Your task to perform on an android device: Search for rayovac triple a on newegg.com, select the first entry, and add it to the cart. Image 0: 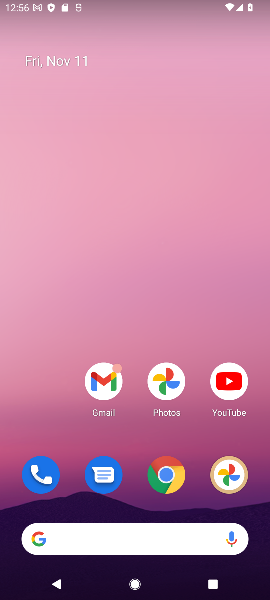
Step 0: drag from (139, 431) to (178, 58)
Your task to perform on an android device: Search for rayovac triple a on newegg.com, select the first entry, and add it to the cart. Image 1: 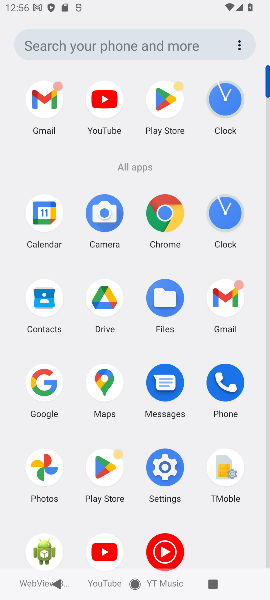
Step 1: click (177, 209)
Your task to perform on an android device: Search for rayovac triple a on newegg.com, select the first entry, and add it to the cart. Image 2: 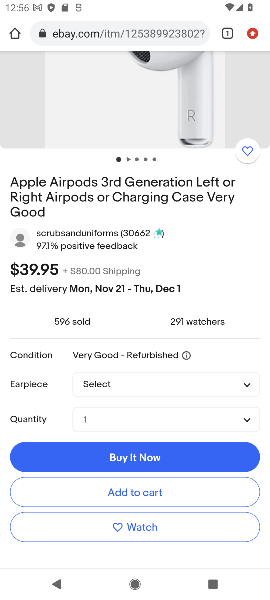
Step 2: click (135, 31)
Your task to perform on an android device: Search for rayovac triple a on newegg.com, select the first entry, and add it to the cart. Image 3: 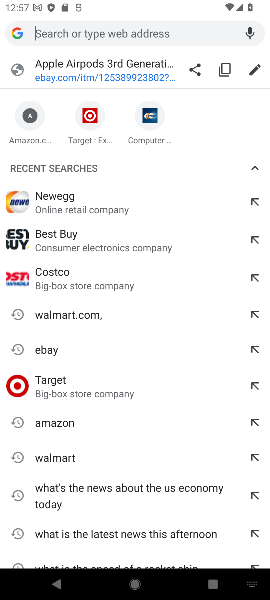
Step 3: type "newegg.com"
Your task to perform on an android device: Search for rayovac triple a on newegg.com, select the first entry, and add it to the cart. Image 4: 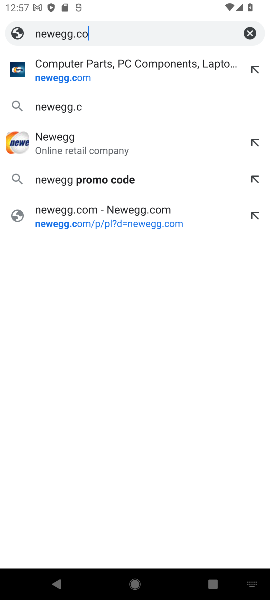
Step 4: press enter
Your task to perform on an android device: Search for rayovac triple a on newegg.com, select the first entry, and add it to the cart. Image 5: 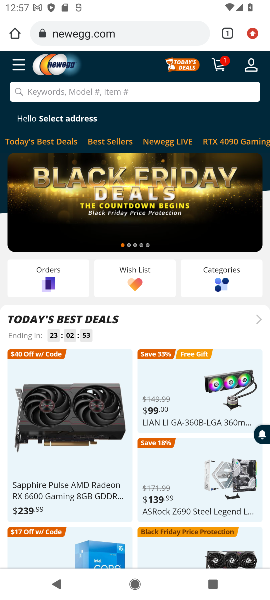
Step 5: click (72, 87)
Your task to perform on an android device: Search for rayovac triple a on newegg.com, select the first entry, and add it to the cart. Image 6: 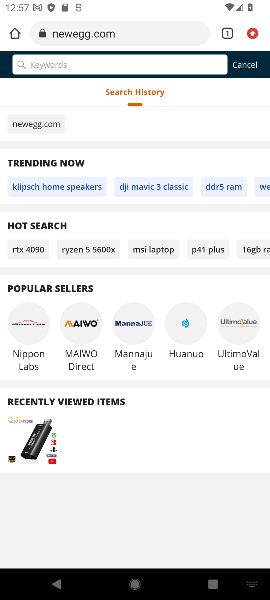
Step 6: type "rayovac triple"
Your task to perform on an android device: Search for rayovac triple a on newegg.com, select the first entry, and add it to the cart. Image 7: 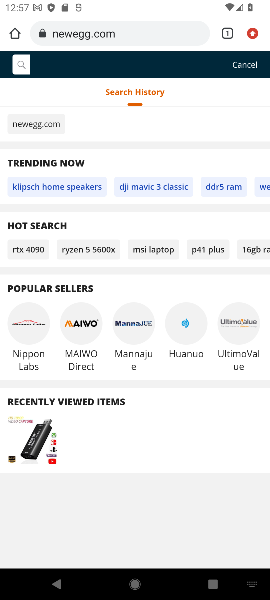
Step 7: press enter
Your task to perform on an android device: Search for rayovac triple a on newegg.com, select the first entry, and add it to the cart. Image 8: 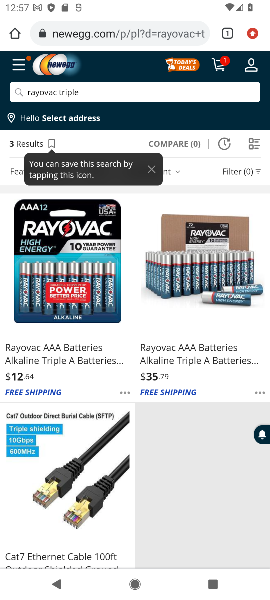
Step 8: click (62, 356)
Your task to perform on an android device: Search for rayovac triple a on newegg.com, select the first entry, and add it to the cart. Image 9: 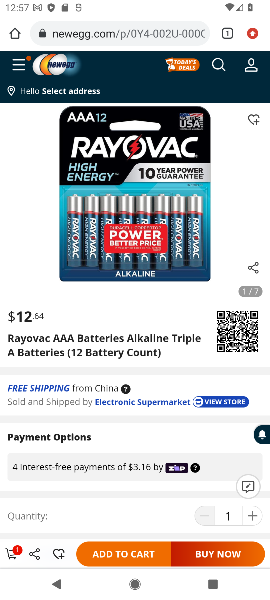
Step 9: click (62, 346)
Your task to perform on an android device: Search for rayovac triple a on newegg.com, select the first entry, and add it to the cart. Image 10: 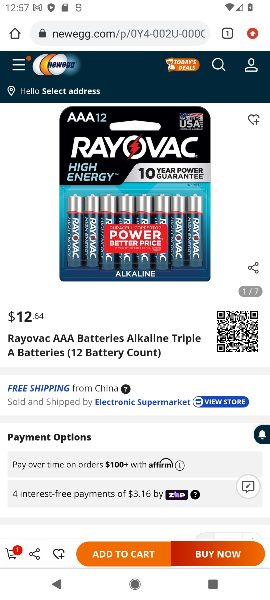
Step 10: click (140, 548)
Your task to perform on an android device: Search for rayovac triple a on newegg.com, select the first entry, and add it to the cart. Image 11: 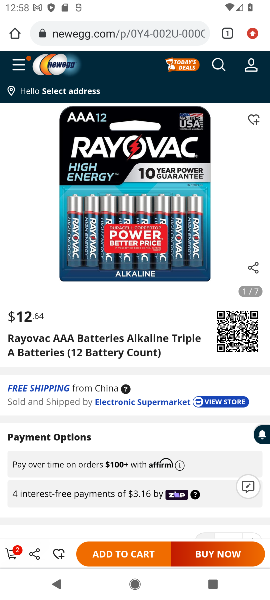
Step 11: task complete